Your task to perform on an android device: check the backup settings in the google photos Image 0: 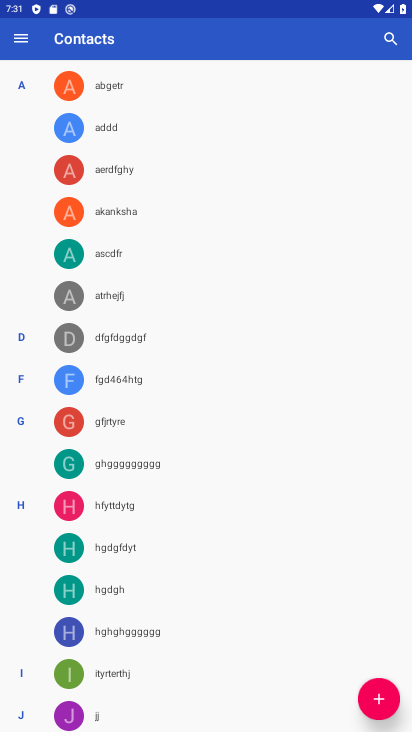
Step 0: press home button
Your task to perform on an android device: check the backup settings in the google photos Image 1: 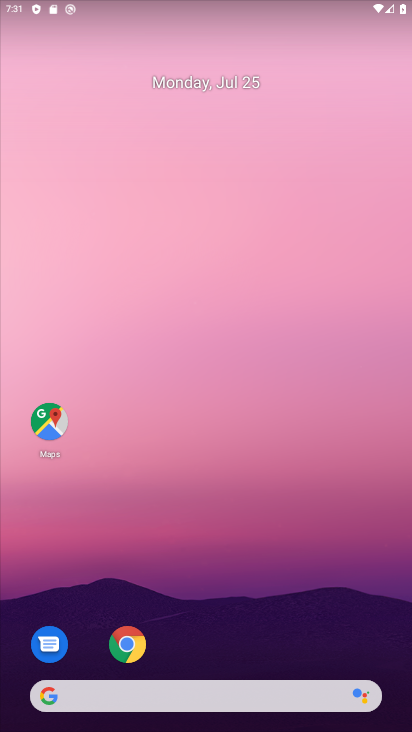
Step 1: drag from (181, 503) to (177, 333)
Your task to perform on an android device: check the backup settings in the google photos Image 2: 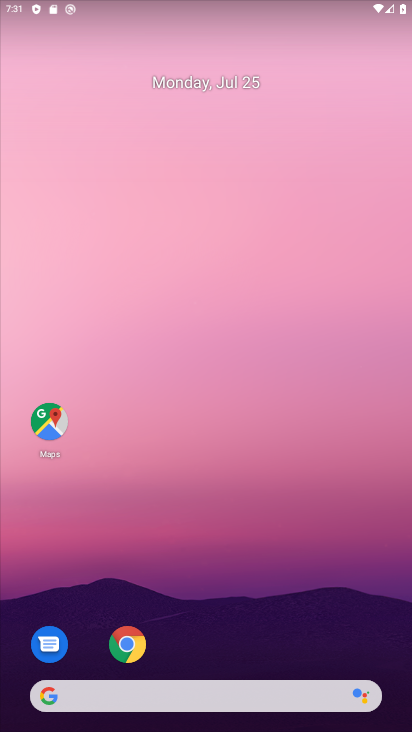
Step 2: drag from (179, 433) to (169, 265)
Your task to perform on an android device: check the backup settings in the google photos Image 3: 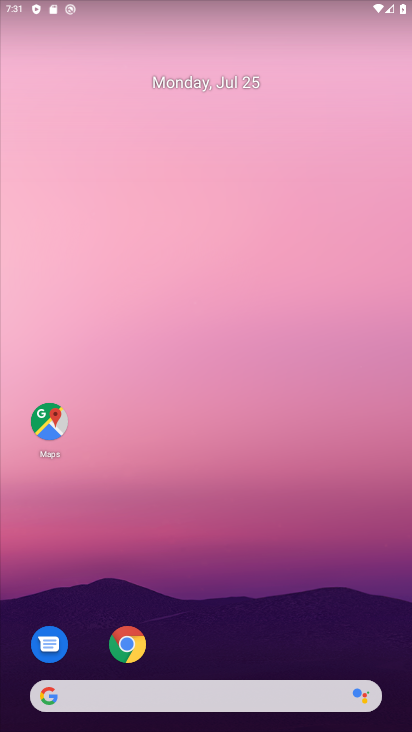
Step 3: click (206, 240)
Your task to perform on an android device: check the backup settings in the google photos Image 4: 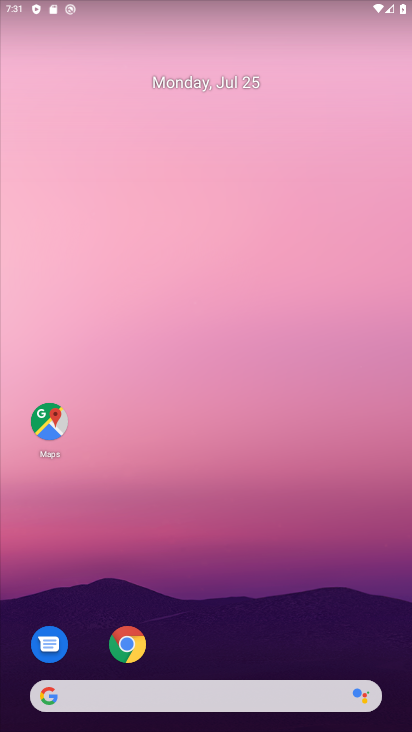
Step 4: drag from (212, 516) to (198, 16)
Your task to perform on an android device: check the backup settings in the google photos Image 5: 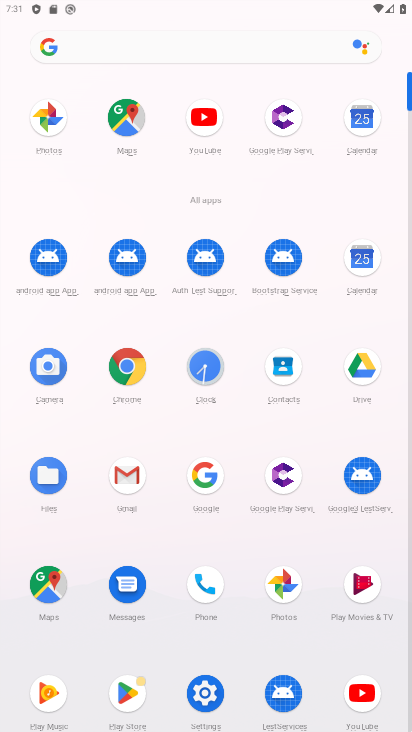
Step 5: click (198, 697)
Your task to perform on an android device: check the backup settings in the google photos Image 6: 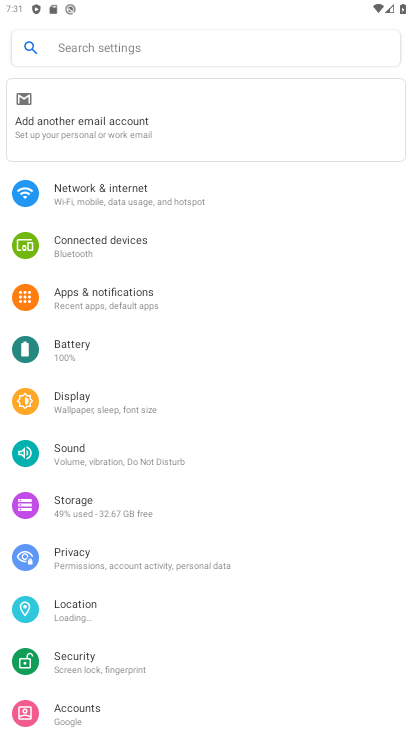
Step 6: press back button
Your task to perform on an android device: check the backup settings in the google photos Image 7: 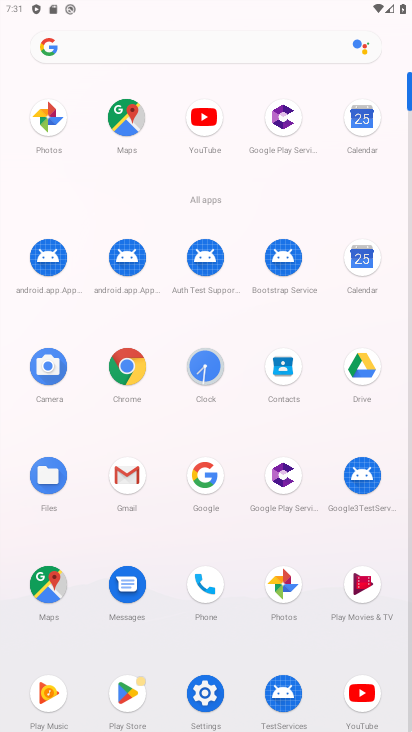
Step 7: click (290, 590)
Your task to perform on an android device: check the backup settings in the google photos Image 8: 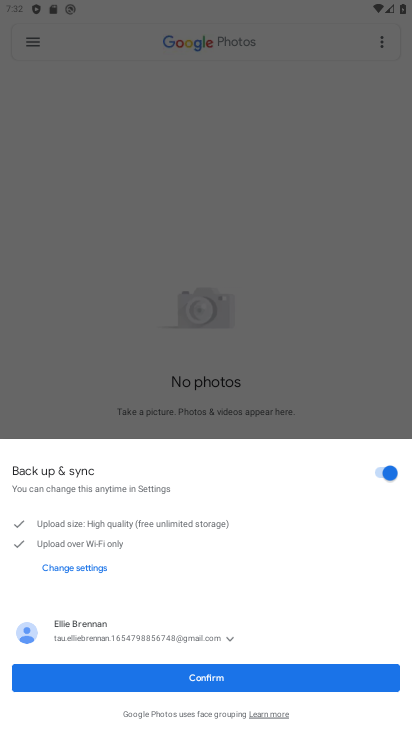
Step 8: click (198, 668)
Your task to perform on an android device: check the backup settings in the google photos Image 9: 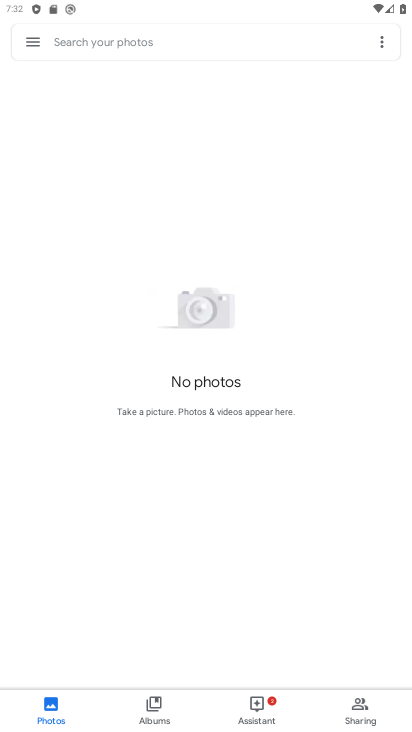
Step 9: click (32, 36)
Your task to perform on an android device: check the backup settings in the google photos Image 10: 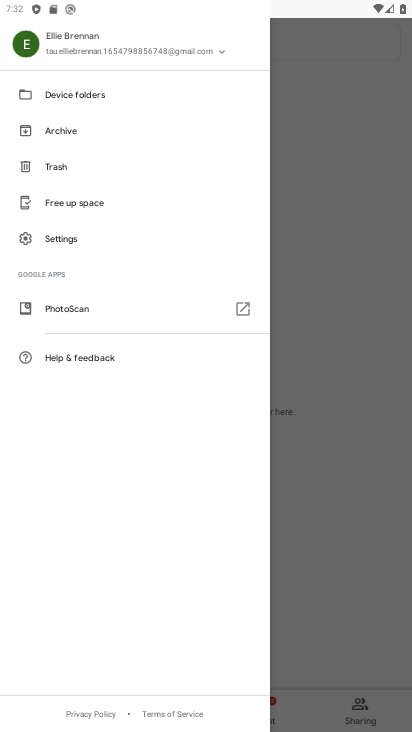
Step 10: click (59, 242)
Your task to perform on an android device: check the backup settings in the google photos Image 11: 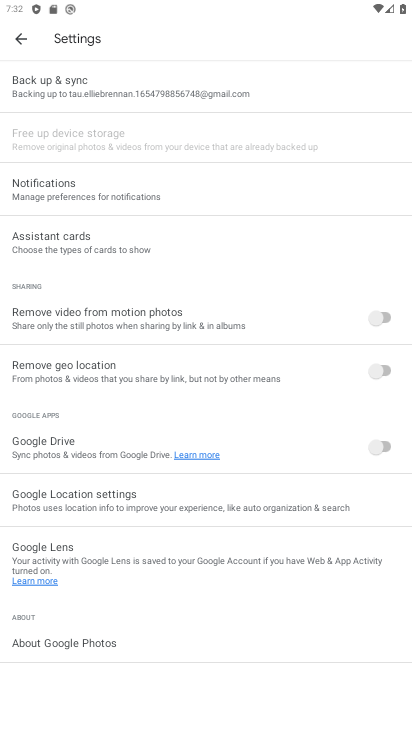
Step 11: click (54, 81)
Your task to perform on an android device: check the backup settings in the google photos Image 12: 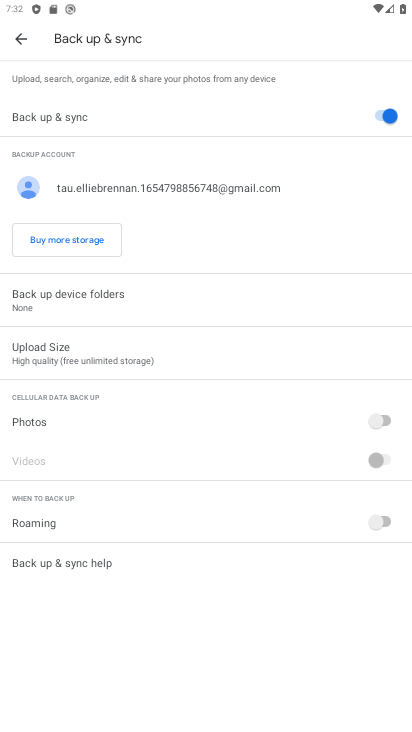
Step 12: task complete